Your task to perform on an android device: Do I have any events tomorrow? Image 0: 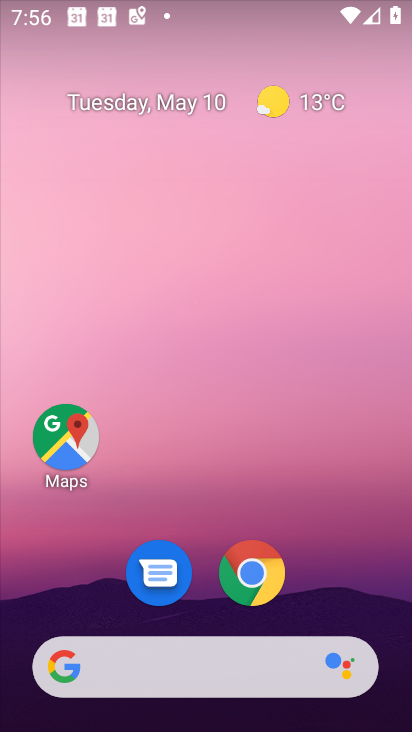
Step 0: drag from (365, 616) to (349, 9)
Your task to perform on an android device: Do I have any events tomorrow? Image 1: 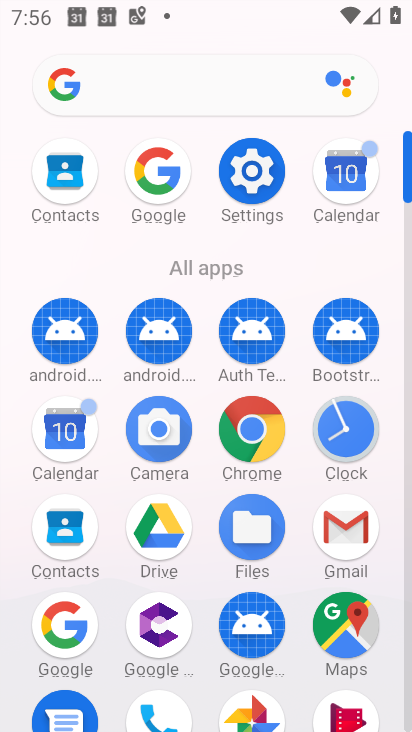
Step 1: click (338, 172)
Your task to perform on an android device: Do I have any events tomorrow? Image 2: 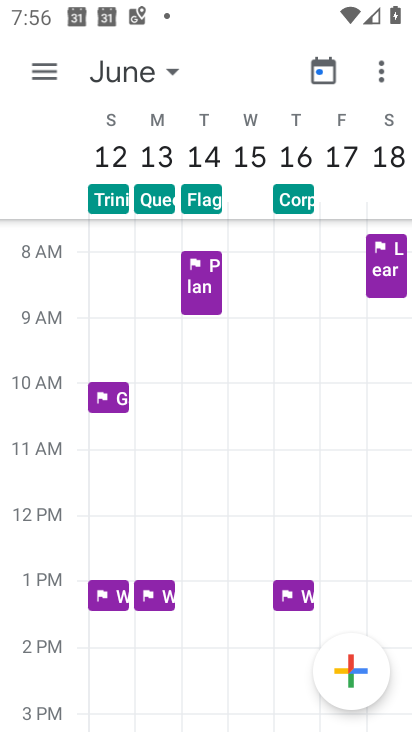
Step 2: click (173, 70)
Your task to perform on an android device: Do I have any events tomorrow? Image 3: 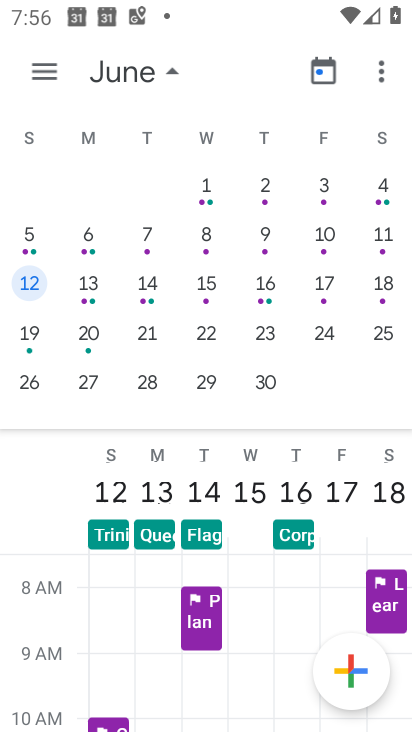
Step 3: drag from (14, 240) to (410, 242)
Your task to perform on an android device: Do I have any events tomorrow? Image 4: 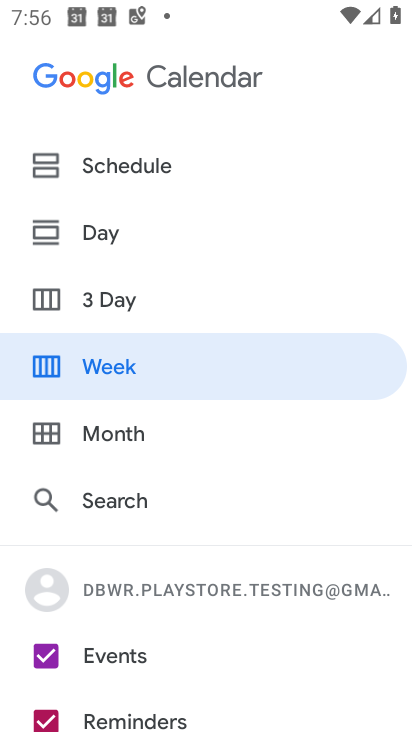
Step 4: drag from (388, 246) to (1, 256)
Your task to perform on an android device: Do I have any events tomorrow? Image 5: 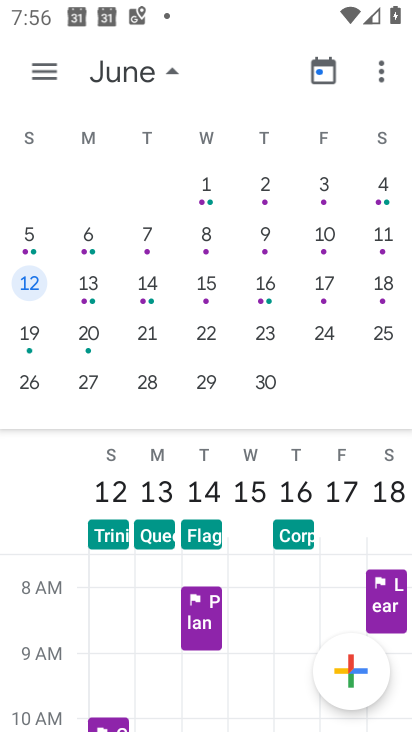
Step 5: drag from (157, 210) to (409, 240)
Your task to perform on an android device: Do I have any events tomorrow? Image 6: 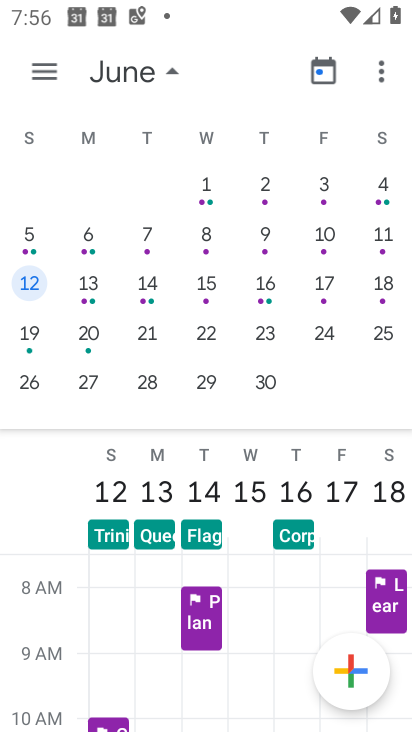
Step 6: drag from (61, 173) to (406, 170)
Your task to perform on an android device: Do I have any events tomorrow? Image 7: 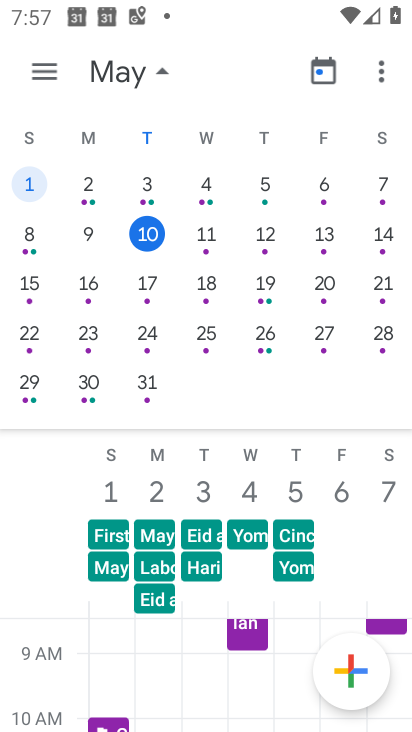
Step 7: click (41, 73)
Your task to perform on an android device: Do I have any events tomorrow? Image 8: 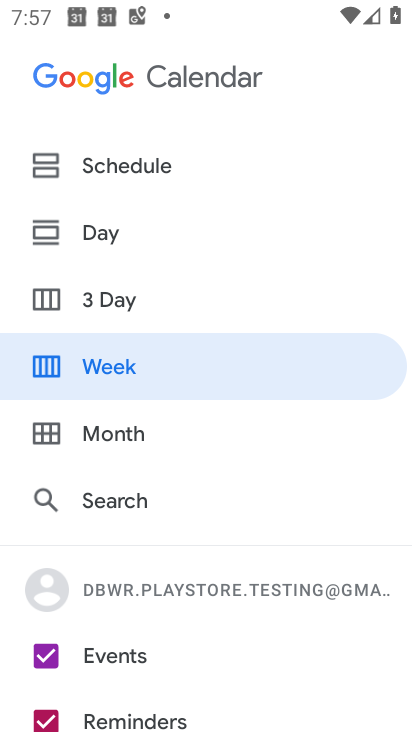
Step 8: click (108, 163)
Your task to perform on an android device: Do I have any events tomorrow? Image 9: 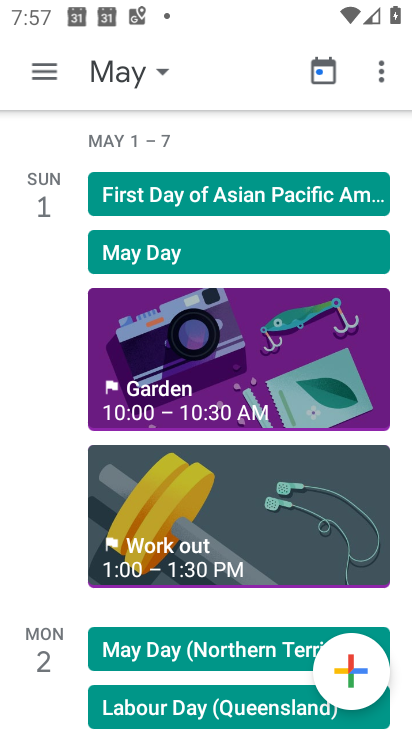
Step 9: click (155, 67)
Your task to perform on an android device: Do I have any events tomorrow? Image 10: 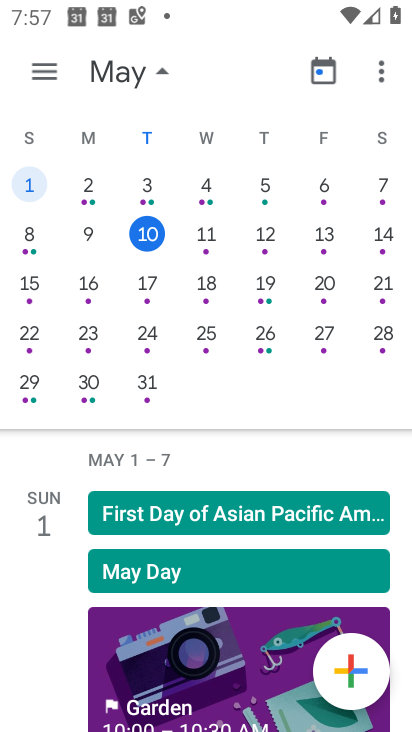
Step 10: click (152, 220)
Your task to perform on an android device: Do I have any events tomorrow? Image 11: 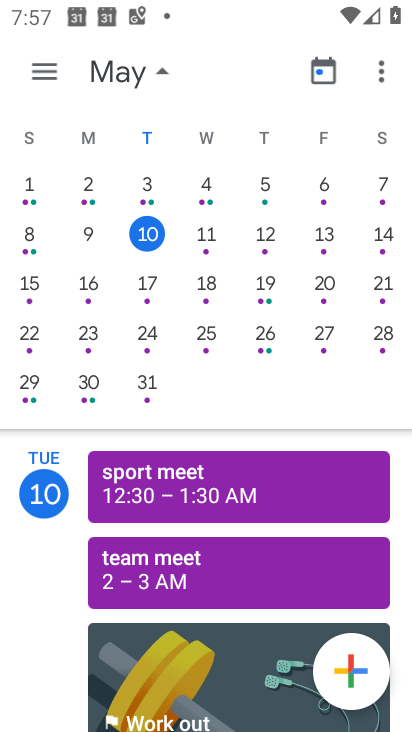
Step 11: click (145, 233)
Your task to perform on an android device: Do I have any events tomorrow? Image 12: 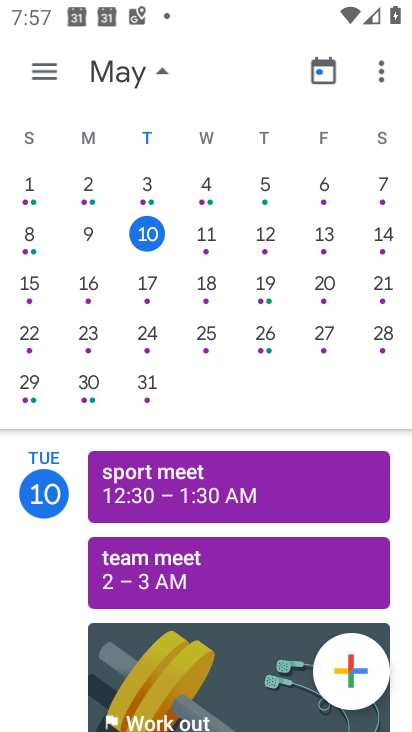
Step 12: drag from (137, 573) to (140, 142)
Your task to perform on an android device: Do I have any events tomorrow? Image 13: 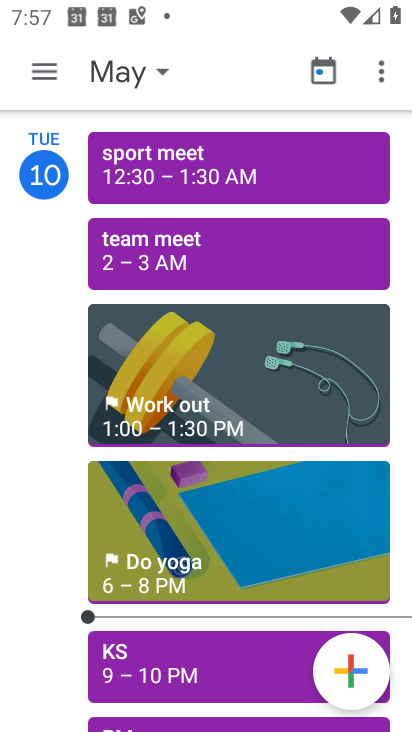
Step 13: drag from (114, 632) to (138, 232)
Your task to perform on an android device: Do I have any events tomorrow? Image 14: 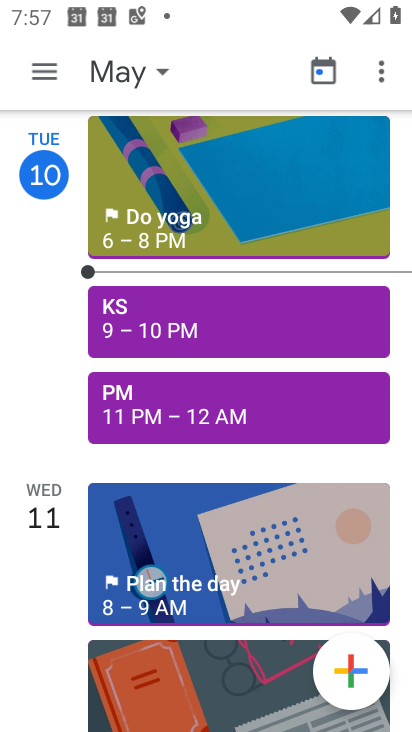
Step 14: drag from (138, 588) to (135, 116)
Your task to perform on an android device: Do I have any events tomorrow? Image 15: 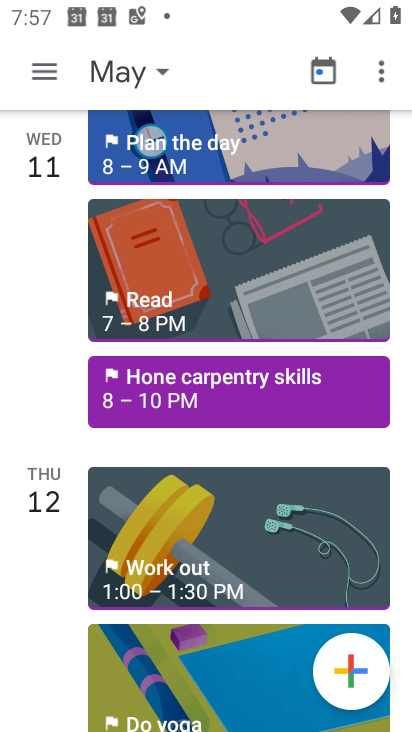
Step 15: click (208, 398)
Your task to perform on an android device: Do I have any events tomorrow? Image 16: 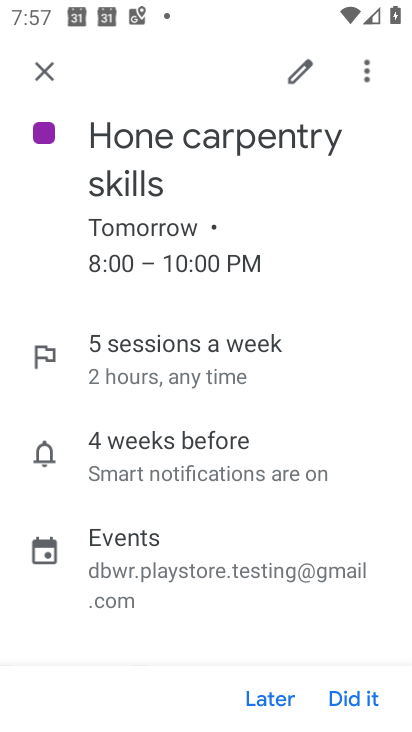
Step 16: task complete